Your task to perform on an android device: change notifications settings Image 0: 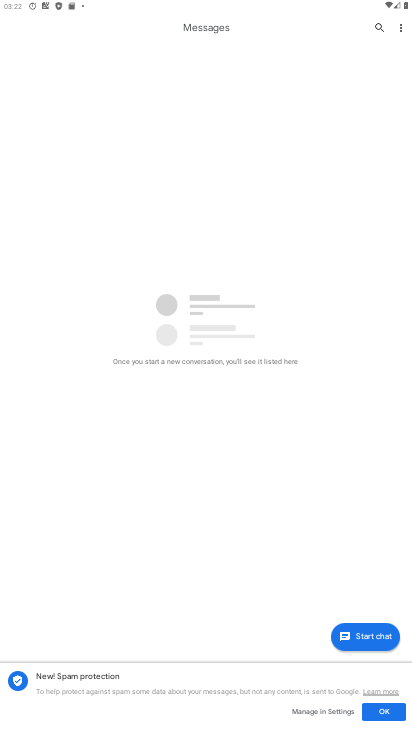
Step 0: press home button
Your task to perform on an android device: change notifications settings Image 1: 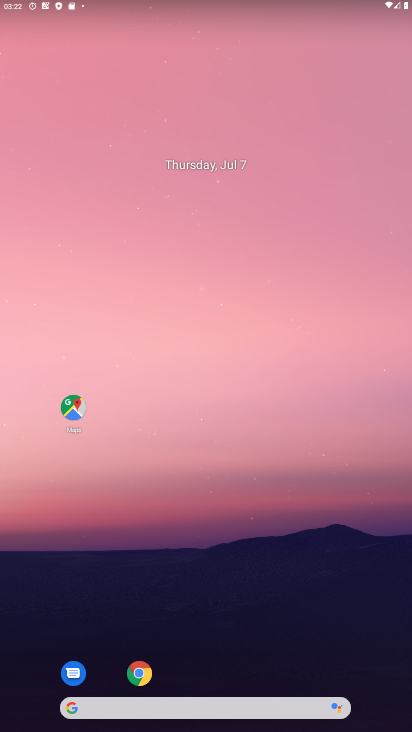
Step 1: drag from (220, 658) to (200, 213)
Your task to perform on an android device: change notifications settings Image 2: 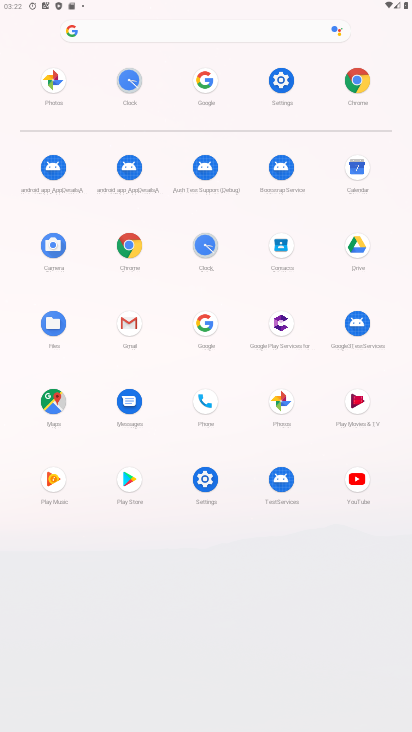
Step 2: click (283, 92)
Your task to perform on an android device: change notifications settings Image 3: 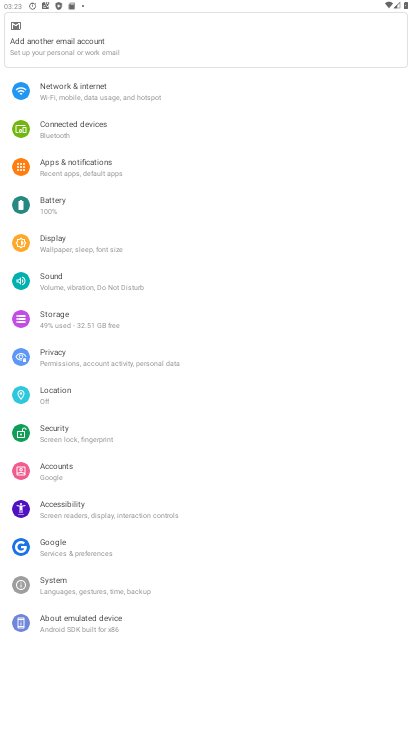
Step 3: click (123, 176)
Your task to perform on an android device: change notifications settings Image 4: 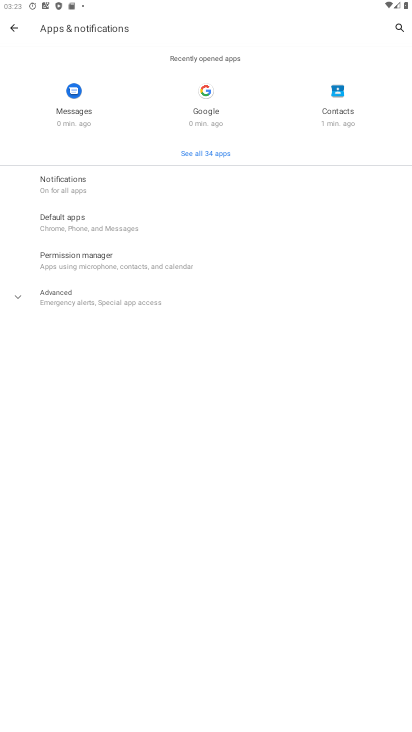
Step 4: click (122, 175)
Your task to perform on an android device: change notifications settings Image 5: 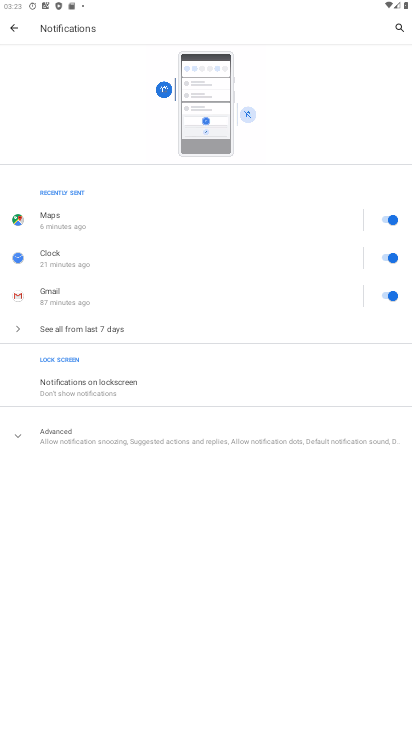
Step 5: click (172, 391)
Your task to perform on an android device: change notifications settings Image 6: 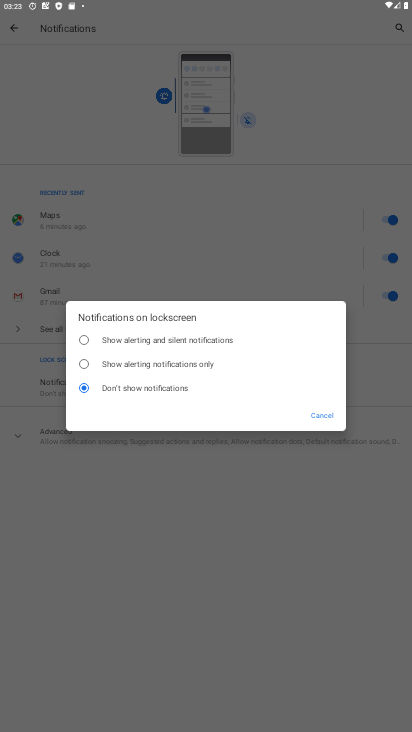
Step 6: click (135, 340)
Your task to perform on an android device: change notifications settings Image 7: 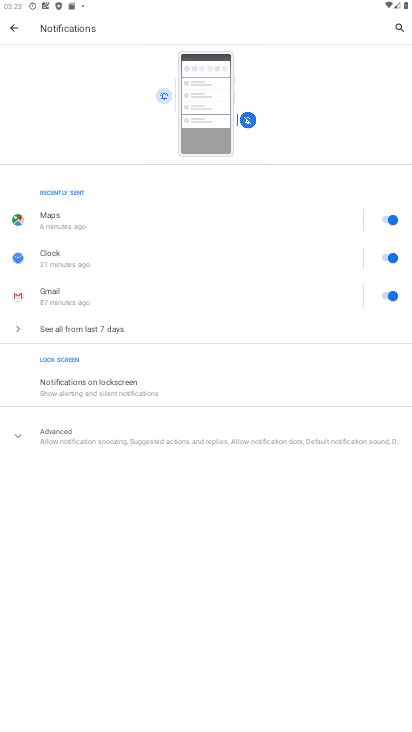
Step 7: task complete